Your task to perform on an android device: open wifi settings Image 0: 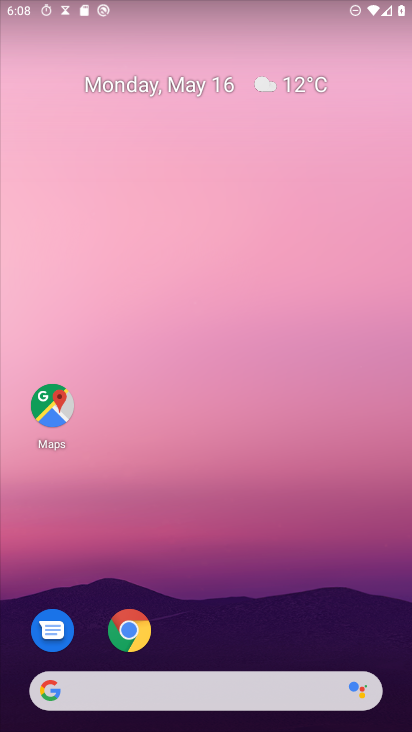
Step 0: drag from (217, 22) to (144, 399)
Your task to perform on an android device: open wifi settings Image 1: 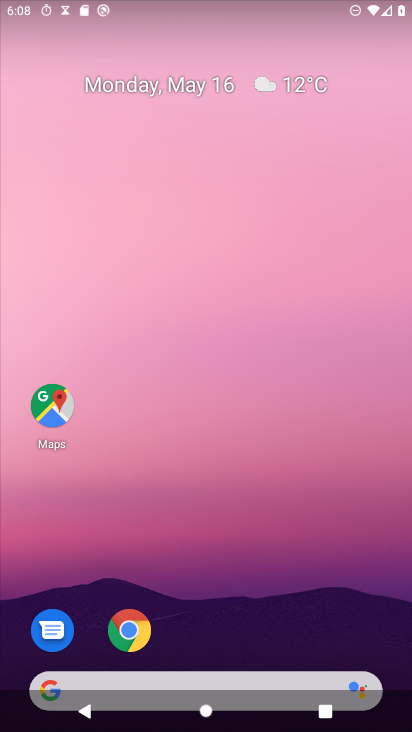
Step 1: drag from (195, 4) to (163, 477)
Your task to perform on an android device: open wifi settings Image 2: 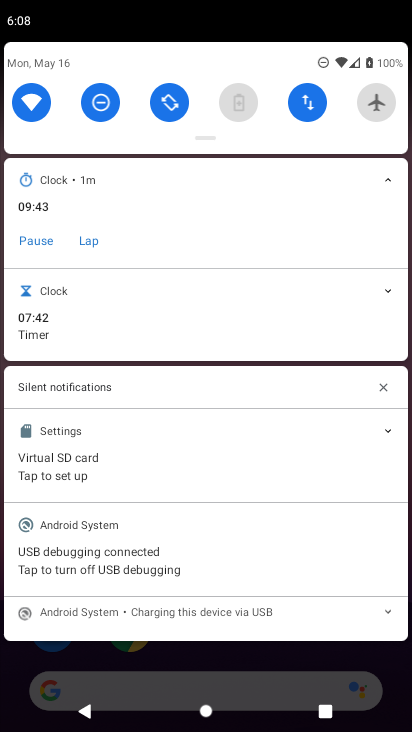
Step 2: click (23, 111)
Your task to perform on an android device: open wifi settings Image 3: 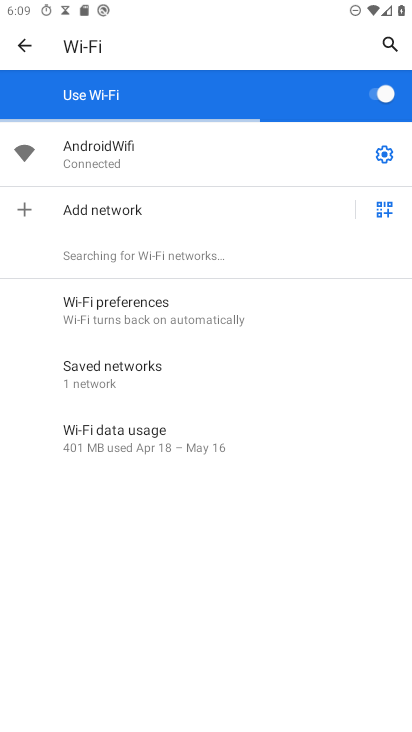
Step 3: task complete